Your task to perform on an android device: Go to network settings Image 0: 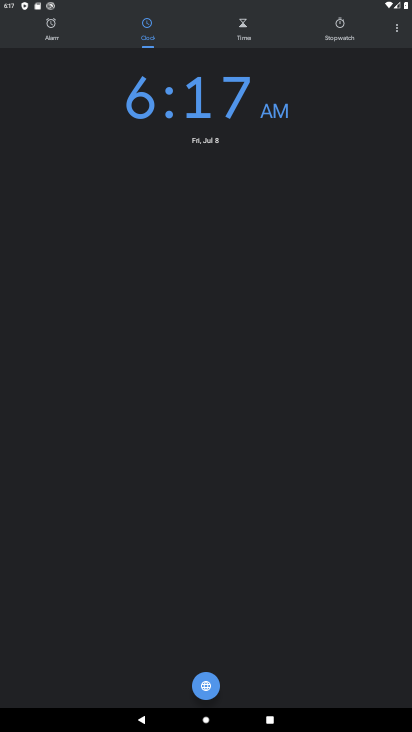
Step 0: press home button
Your task to perform on an android device: Go to network settings Image 1: 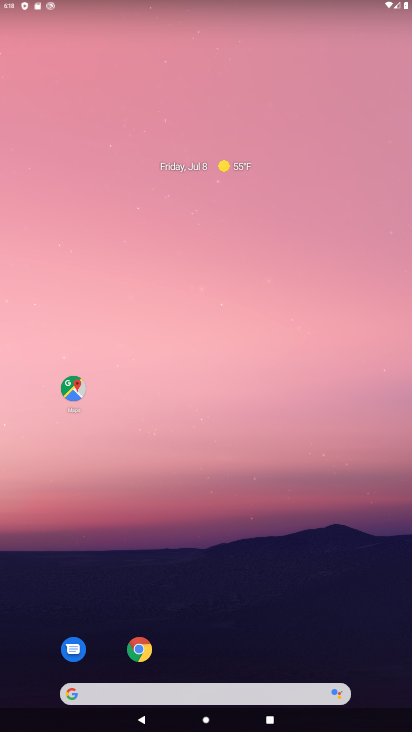
Step 1: drag from (264, 688) to (299, 15)
Your task to perform on an android device: Go to network settings Image 2: 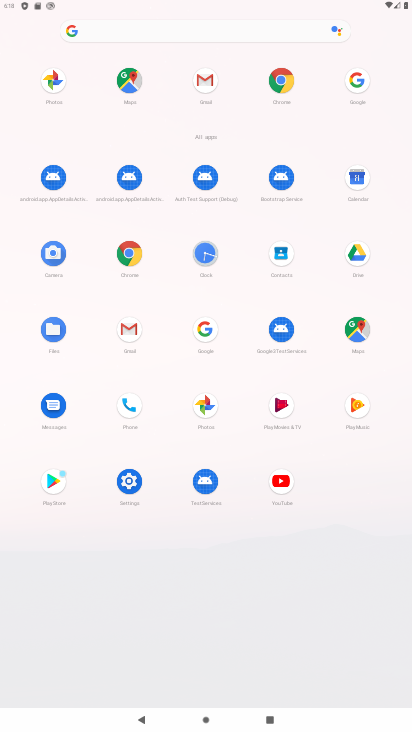
Step 2: click (133, 483)
Your task to perform on an android device: Go to network settings Image 3: 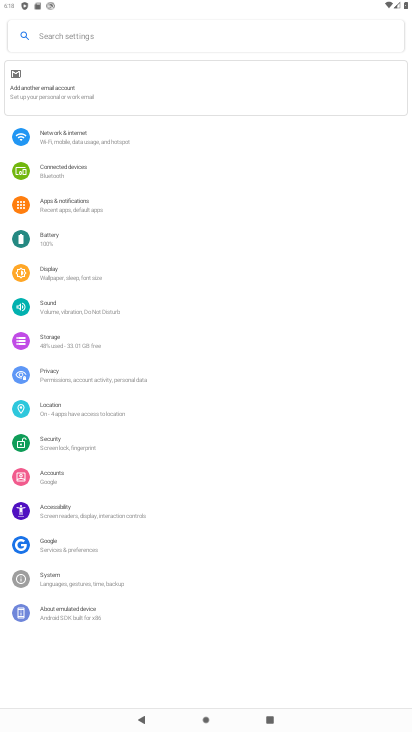
Step 3: click (62, 139)
Your task to perform on an android device: Go to network settings Image 4: 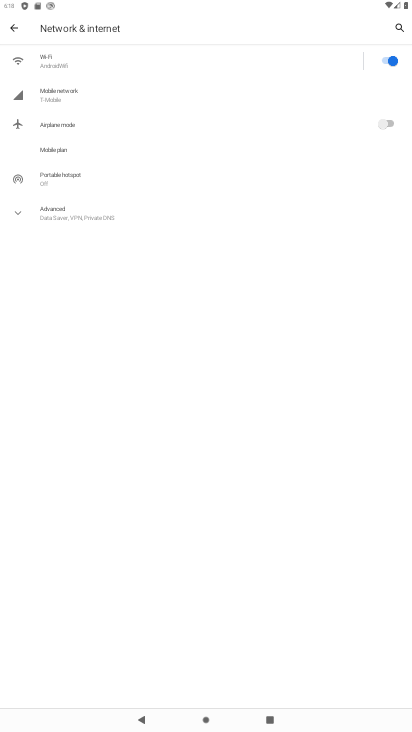
Step 4: task complete